Your task to perform on an android device: Open Maps and search for coffee Image 0: 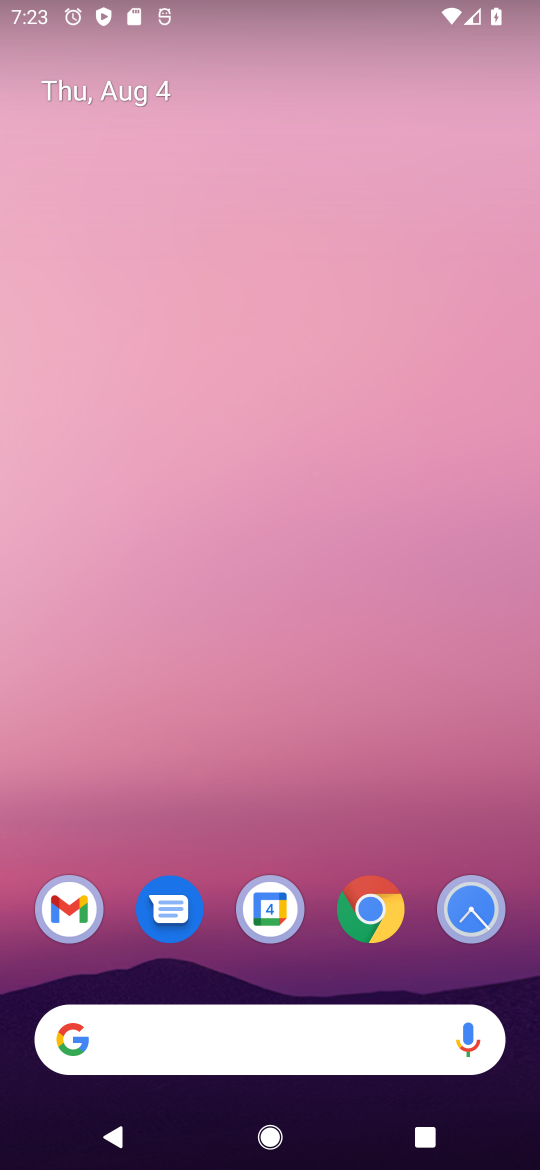
Step 0: drag from (246, 525) to (318, 133)
Your task to perform on an android device: Open Maps and search for coffee Image 1: 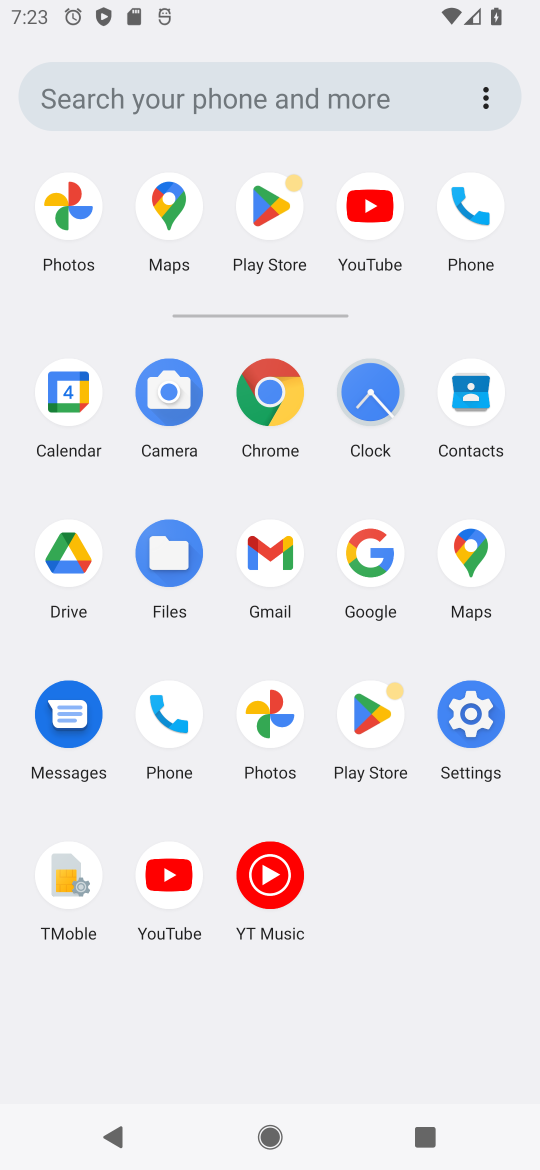
Step 1: click (474, 543)
Your task to perform on an android device: Open Maps and search for coffee Image 2: 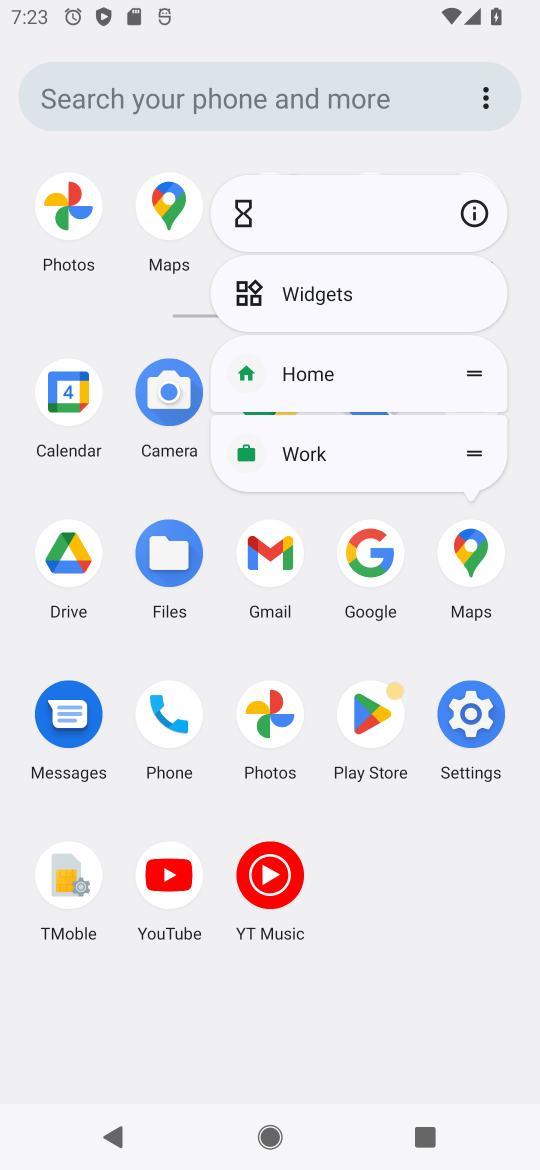
Step 2: click (474, 542)
Your task to perform on an android device: Open Maps and search for coffee Image 3: 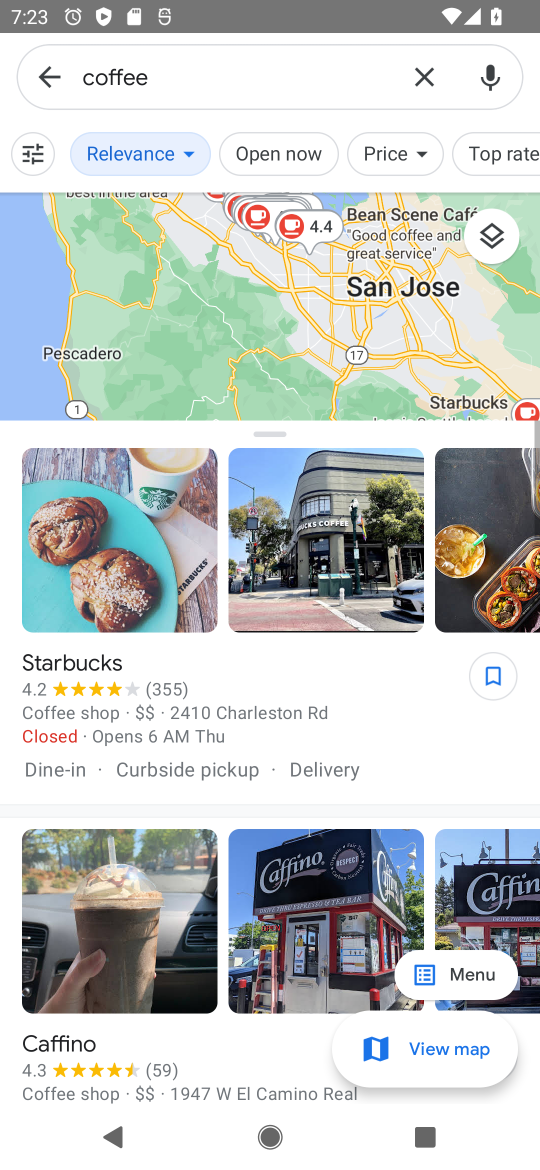
Step 3: click (417, 84)
Your task to perform on an android device: Open Maps and search for coffee Image 4: 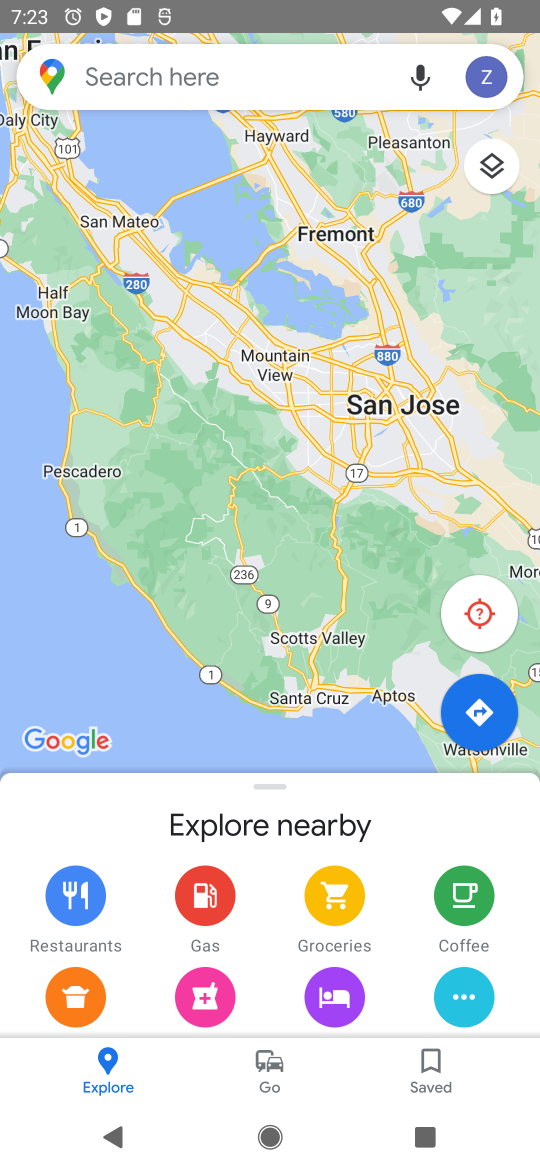
Step 4: click (166, 61)
Your task to perform on an android device: Open Maps and search for coffee Image 5: 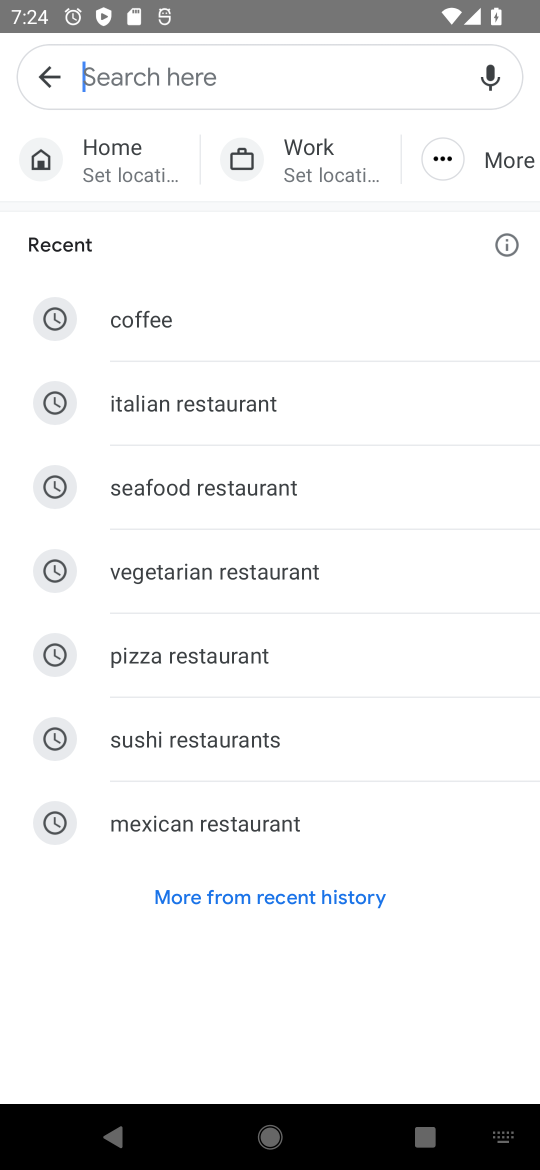
Step 5: click (183, 320)
Your task to perform on an android device: Open Maps and search for coffee Image 6: 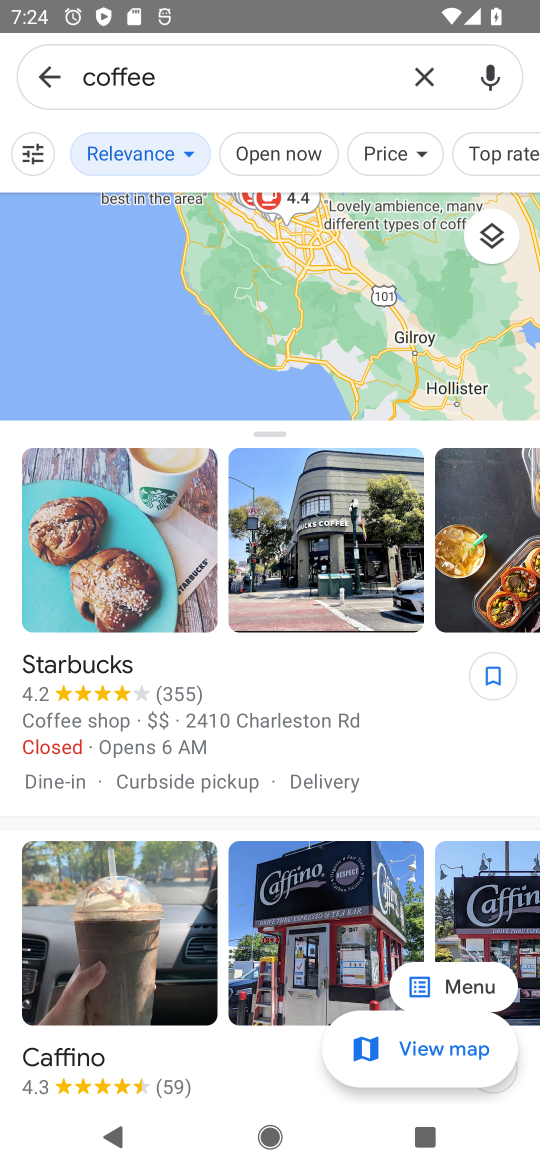
Step 6: task complete